Your task to perform on an android device: open chrome privacy settings Image 0: 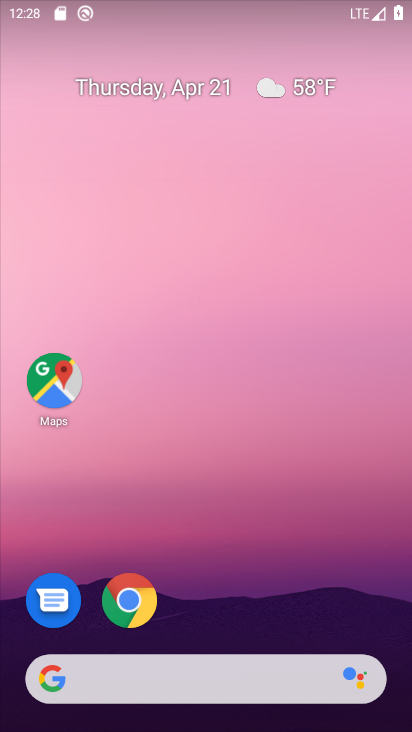
Step 0: click (133, 602)
Your task to perform on an android device: open chrome privacy settings Image 1: 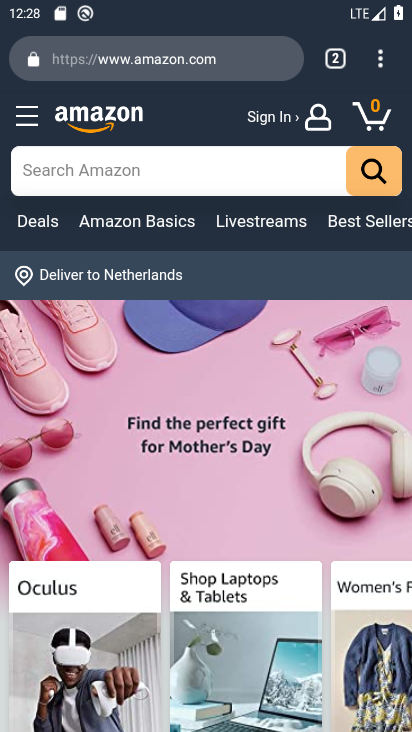
Step 1: click (379, 65)
Your task to perform on an android device: open chrome privacy settings Image 2: 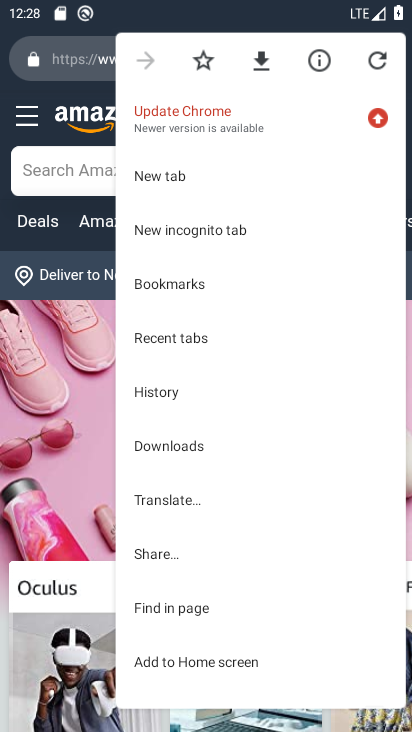
Step 2: drag from (246, 489) to (253, 209)
Your task to perform on an android device: open chrome privacy settings Image 3: 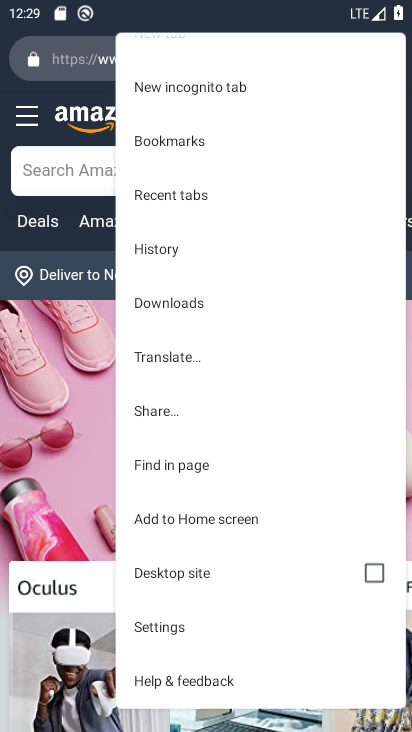
Step 3: click (193, 625)
Your task to perform on an android device: open chrome privacy settings Image 4: 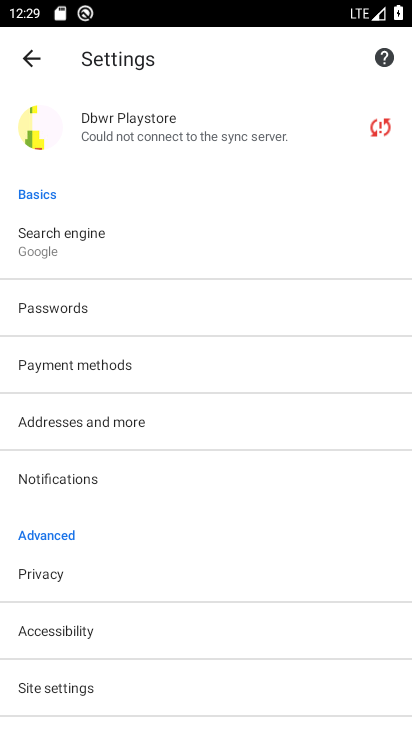
Step 4: click (174, 571)
Your task to perform on an android device: open chrome privacy settings Image 5: 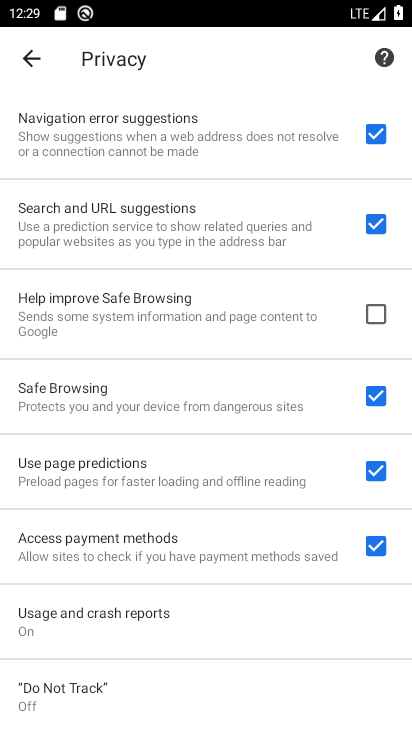
Step 5: task complete